Your task to perform on an android device: change the clock display to digital Image 0: 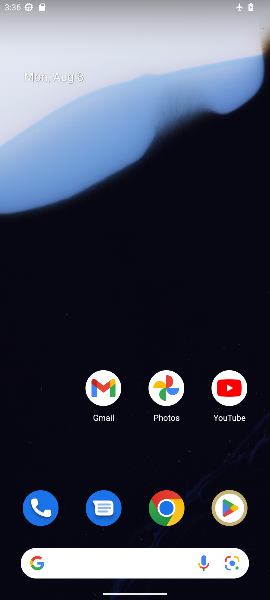
Step 0: drag from (134, 454) to (133, 48)
Your task to perform on an android device: change the clock display to digital Image 1: 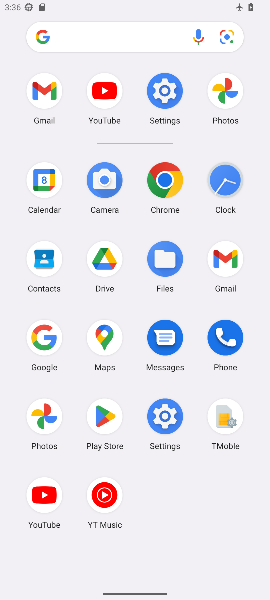
Step 1: click (229, 181)
Your task to perform on an android device: change the clock display to digital Image 2: 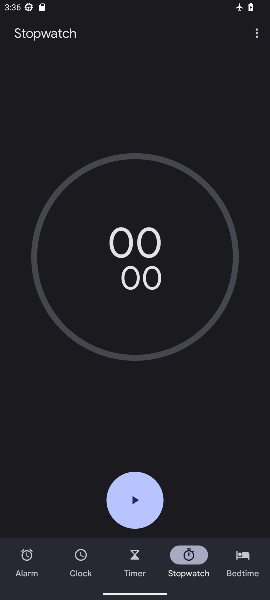
Step 2: click (256, 29)
Your task to perform on an android device: change the clock display to digital Image 3: 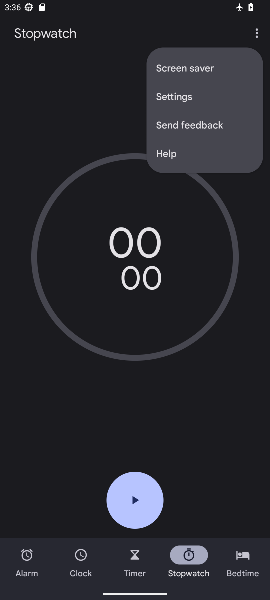
Step 3: click (180, 93)
Your task to perform on an android device: change the clock display to digital Image 4: 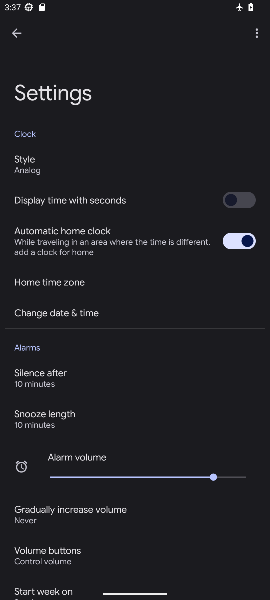
Step 4: click (29, 162)
Your task to perform on an android device: change the clock display to digital Image 5: 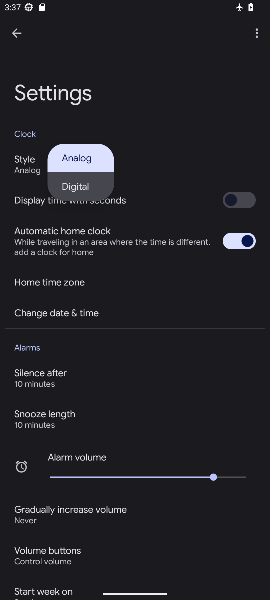
Step 5: click (77, 185)
Your task to perform on an android device: change the clock display to digital Image 6: 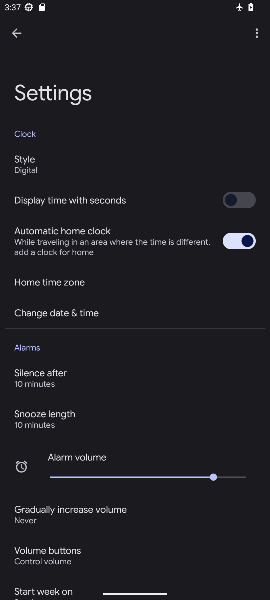
Step 6: task complete